Your task to perform on an android device: Go to Yahoo.com Image 0: 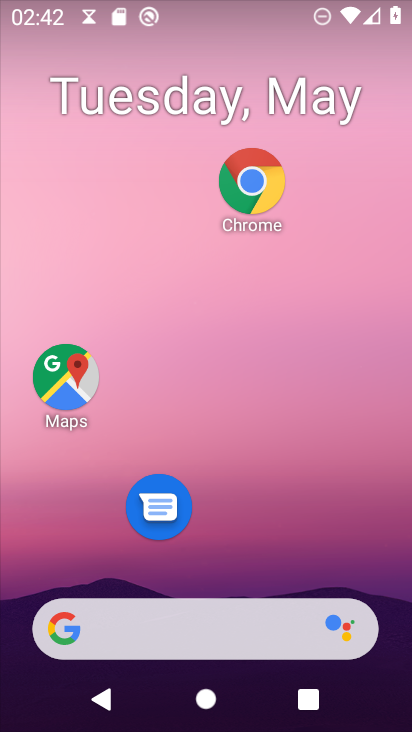
Step 0: click (286, 485)
Your task to perform on an android device: Go to Yahoo.com Image 1: 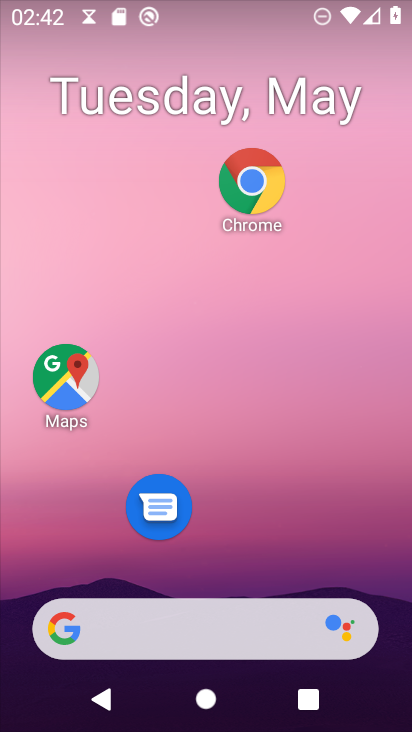
Step 1: click (263, 171)
Your task to perform on an android device: Go to Yahoo.com Image 2: 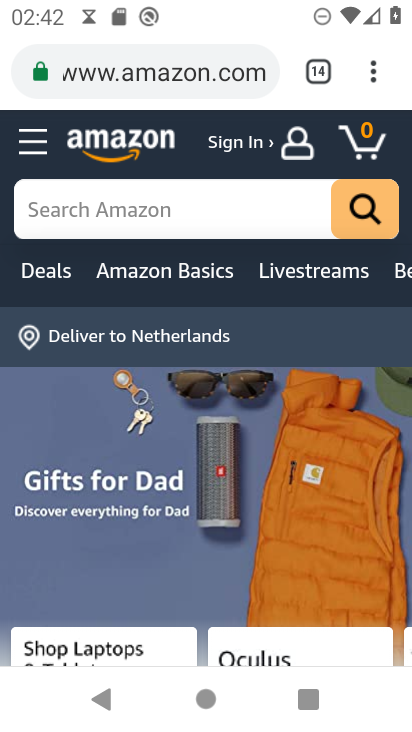
Step 2: click (381, 69)
Your task to perform on an android device: Go to Yahoo.com Image 3: 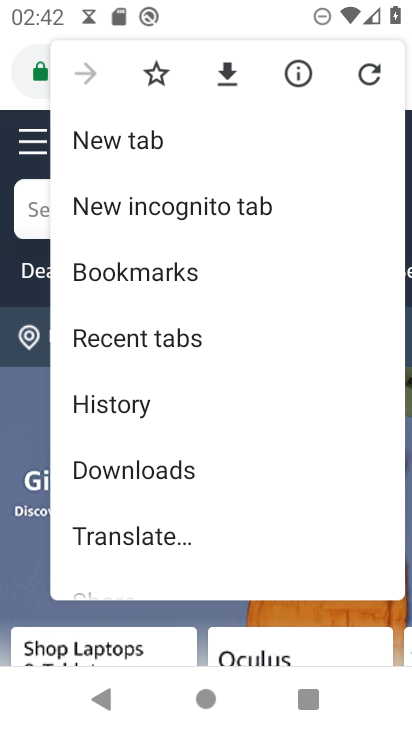
Step 3: click (148, 141)
Your task to perform on an android device: Go to Yahoo.com Image 4: 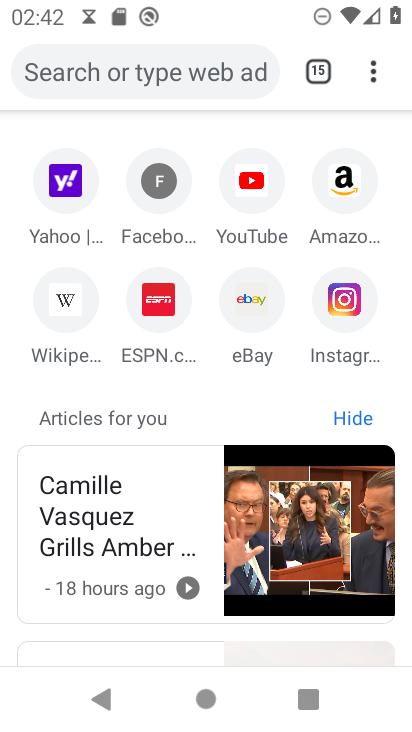
Step 4: click (65, 170)
Your task to perform on an android device: Go to Yahoo.com Image 5: 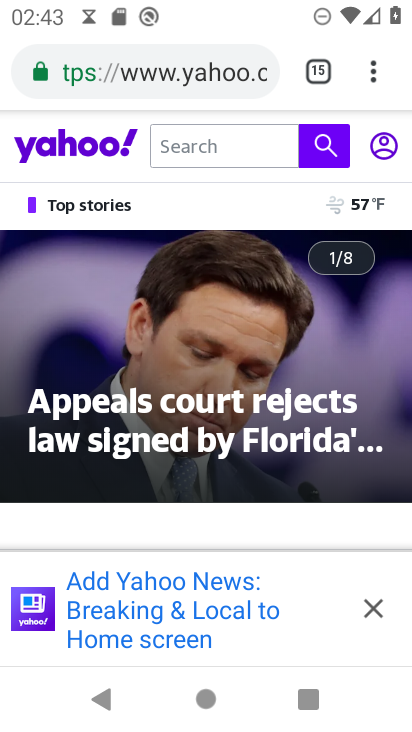
Step 5: task complete